Your task to perform on an android device: change the clock display to show seconds Image 0: 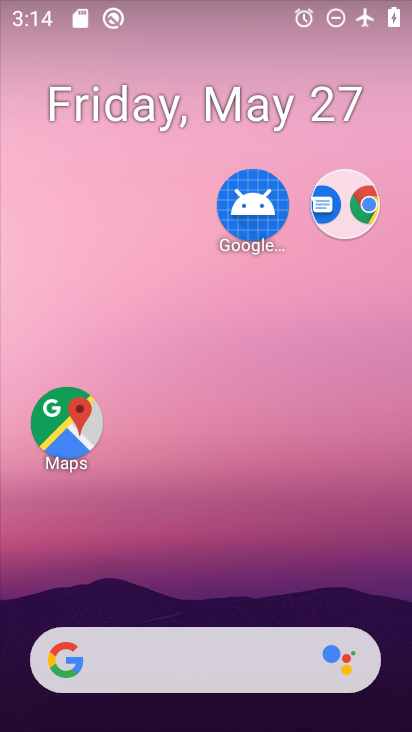
Step 0: drag from (279, 574) to (307, 307)
Your task to perform on an android device: change the clock display to show seconds Image 1: 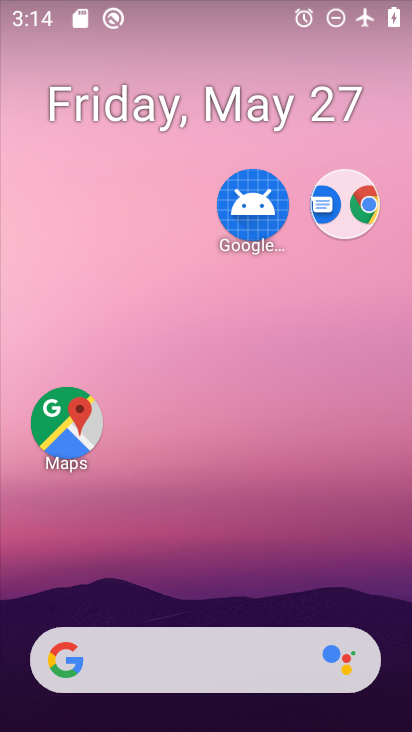
Step 1: drag from (163, 729) to (229, 437)
Your task to perform on an android device: change the clock display to show seconds Image 2: 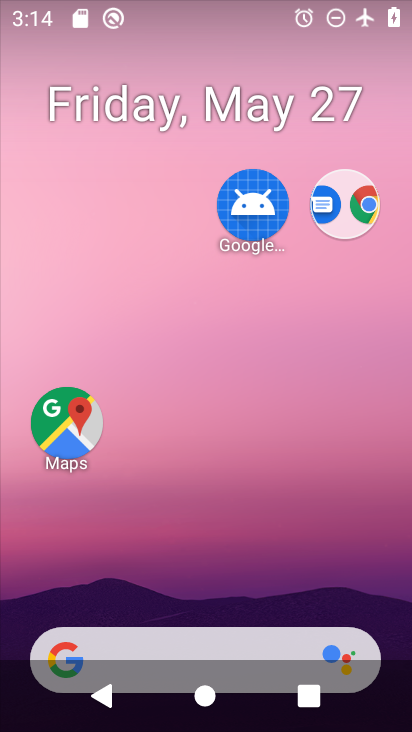
Step 2: drag from (213, 432) to (209, 73)
Your task to perform on an android device: change the clock display to show seconds Image 3: 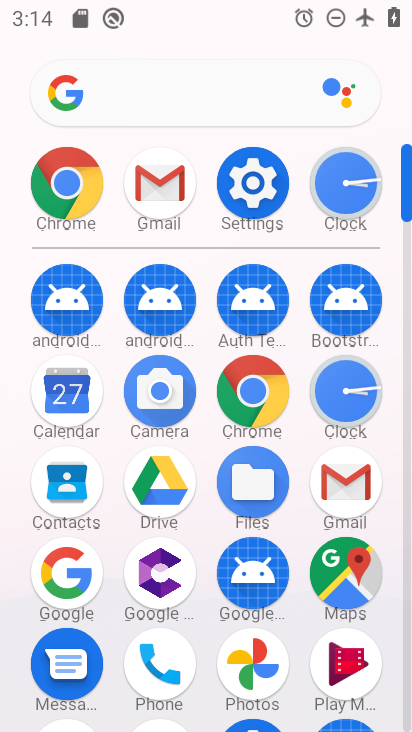
Step 3: click (370, 403)
Your task to perform on an android device: change the clock display to show seconds Image 4: 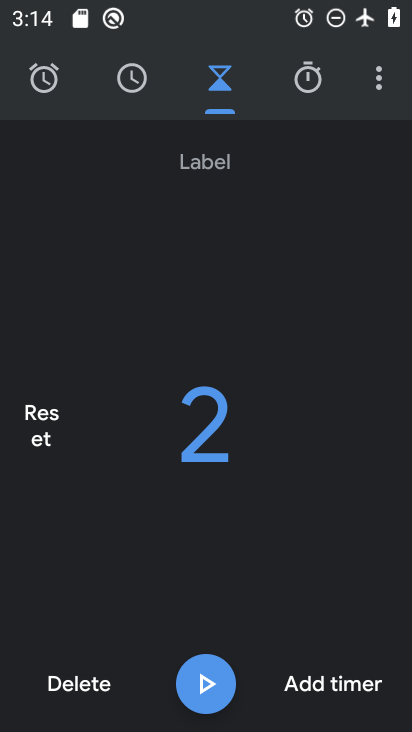
Step 4: click (380, 69)
Your task to perform on an android device: change the clock display to show seconds Image 5: 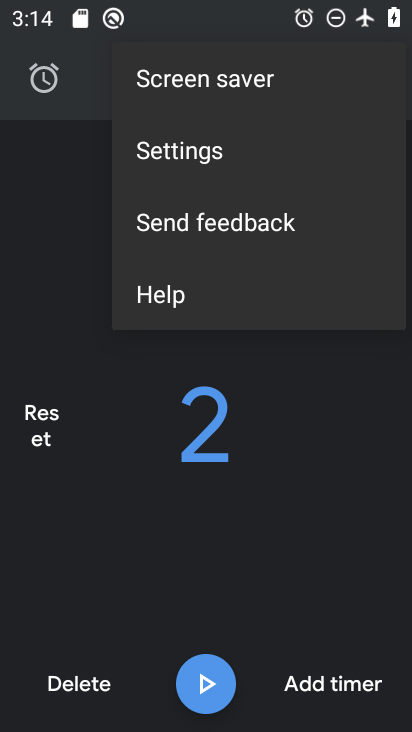
Step 5: click (231, 146)
Your task to perform on an android device: change the clock display to show seconds Image 6: 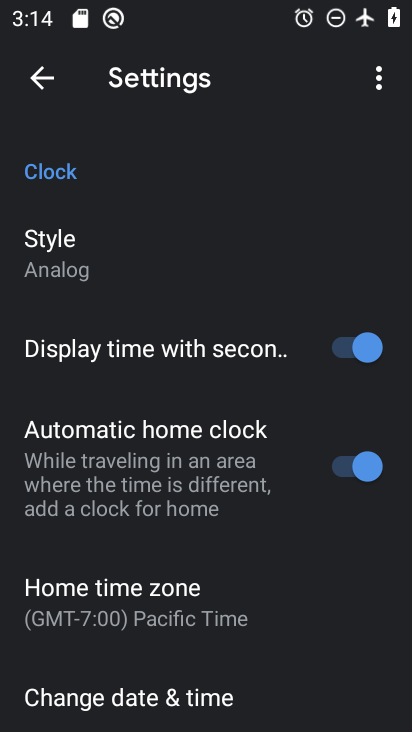
Step 6: task complete